Your task to perform on an android device: change text size in settings app Image 0: 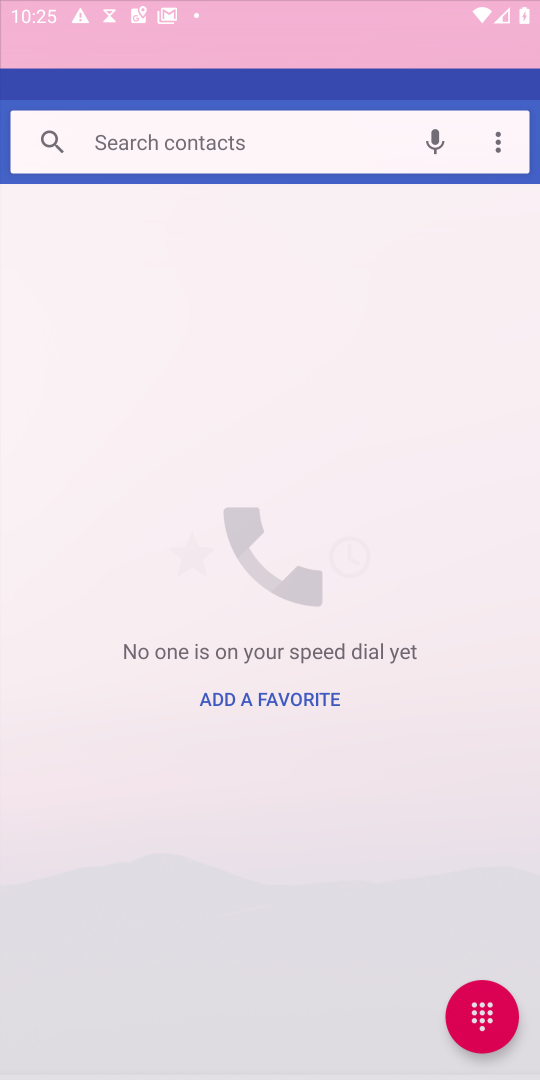
Step 0: press home button
Your task to perform on an android device: change text size in settings app Image 1: 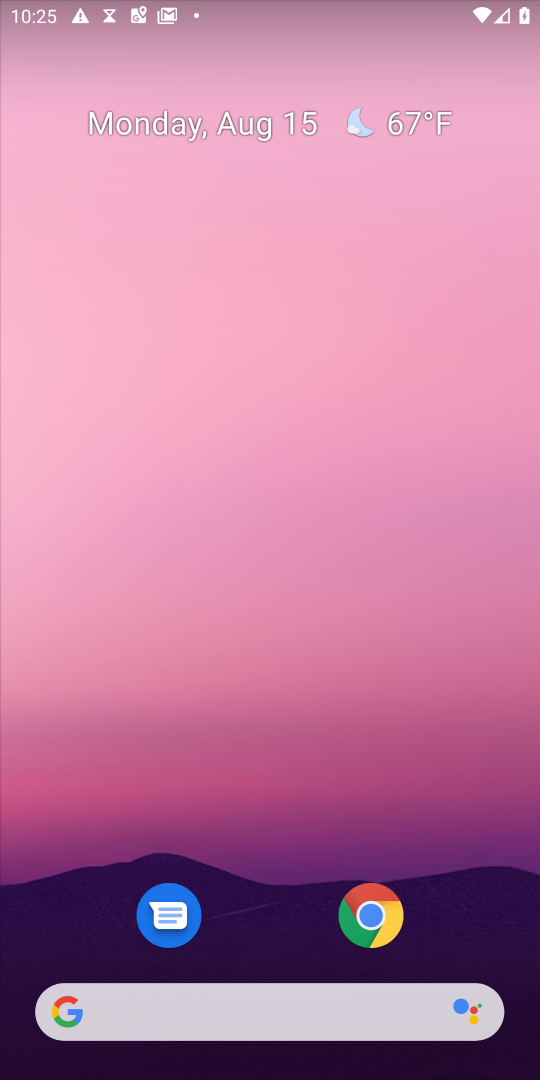
Step 1: drag from (275, 913) to (230, 167)
Your task to perform on an android device: change text size in settings app Image 2: 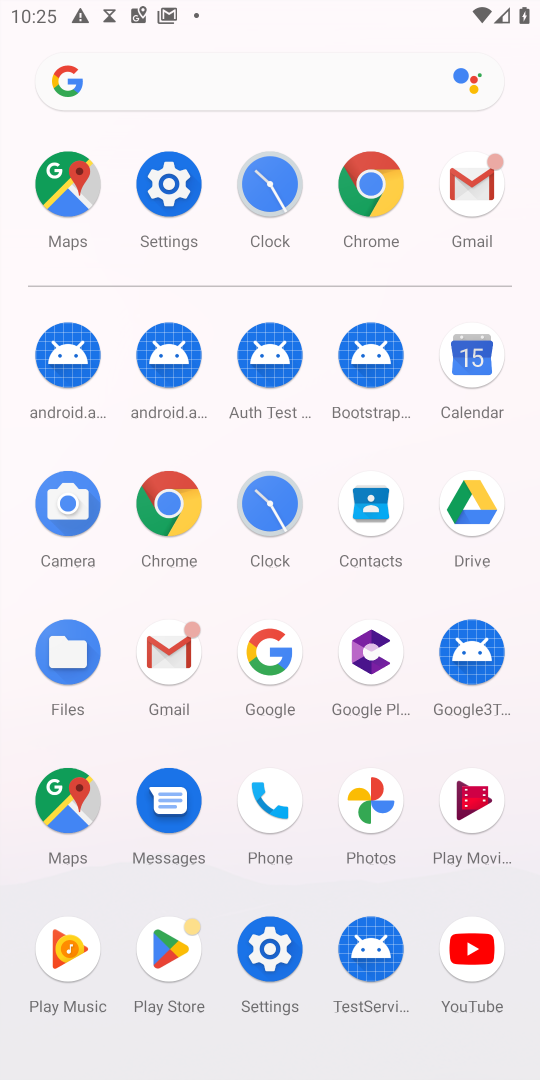
Step 2: click (185, 190)
Your task to perform on an android device: change text size in settings app Image 3: 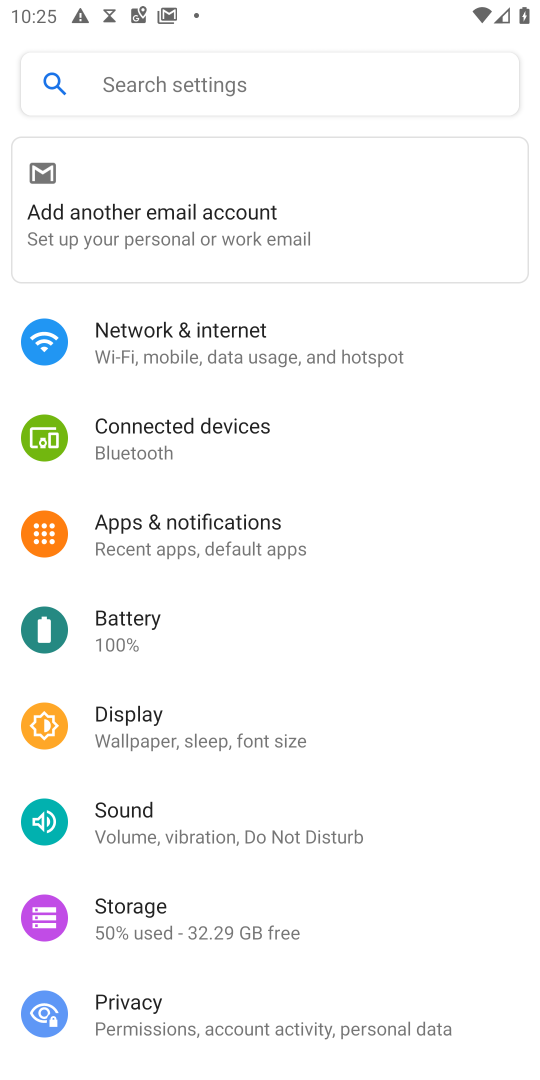
Step 3: click (155, 714)
Your task to perform on an android device: change text size in settings app Image 4: 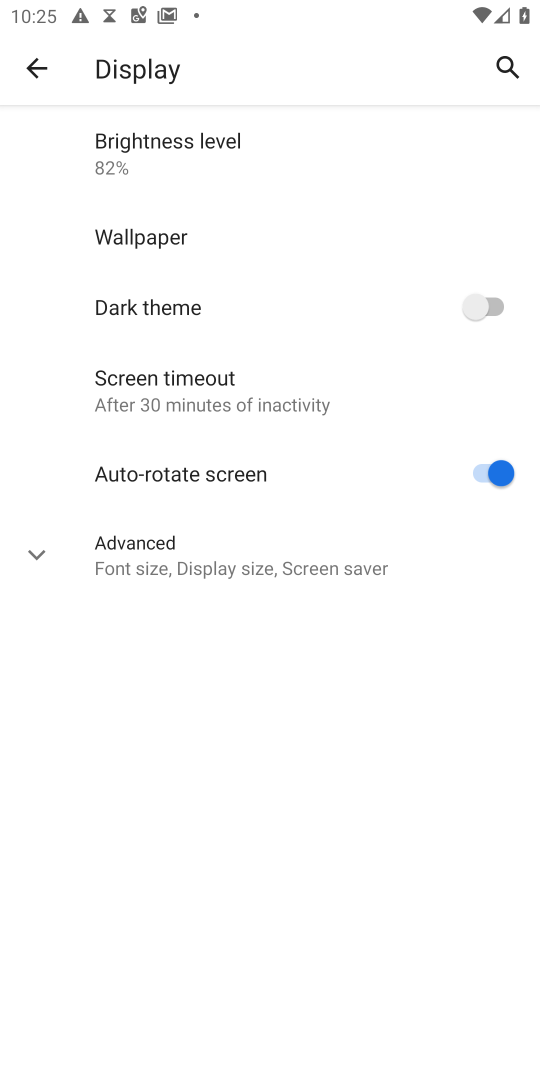
Step 4: click (35, 551)
Your task to perform on an android device: change text size in settings app Image 5: 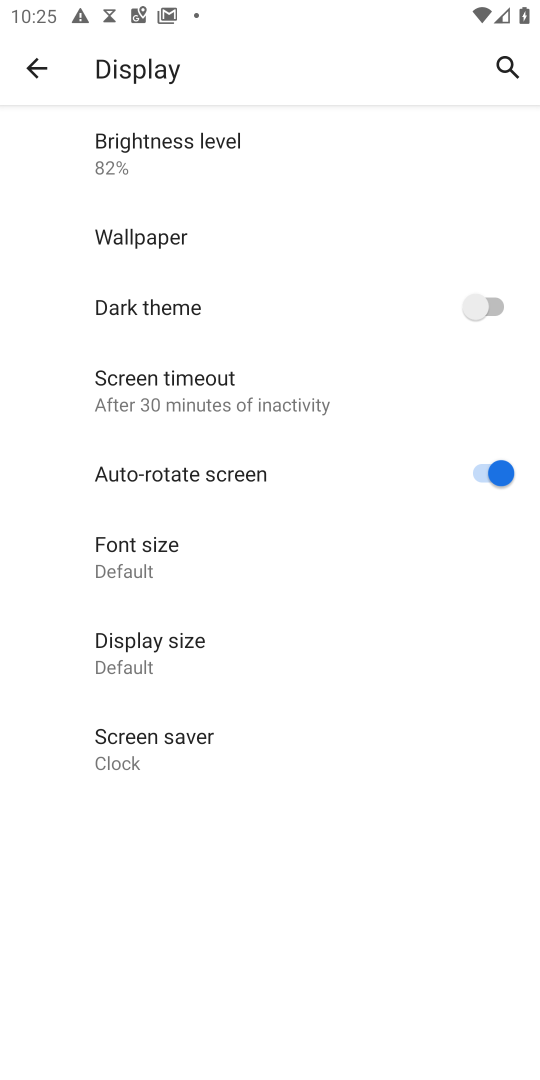
Step 5: click (180, 568)
Your task to perform on an android device: change text size in settings app Image 6: 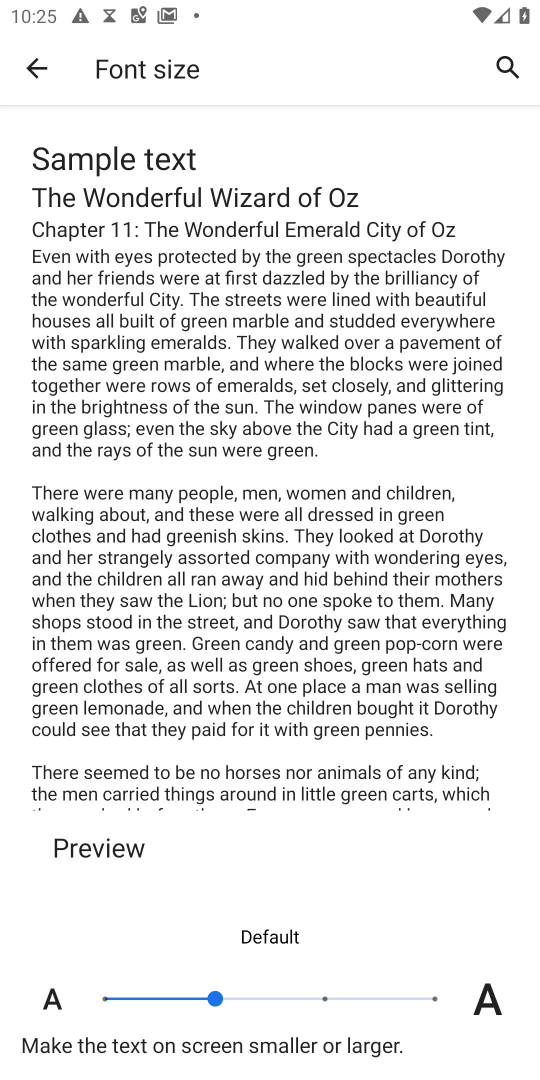
Step 6: click (323, 996)
Your task to perform on an android device: change text size in settings app Image 7: 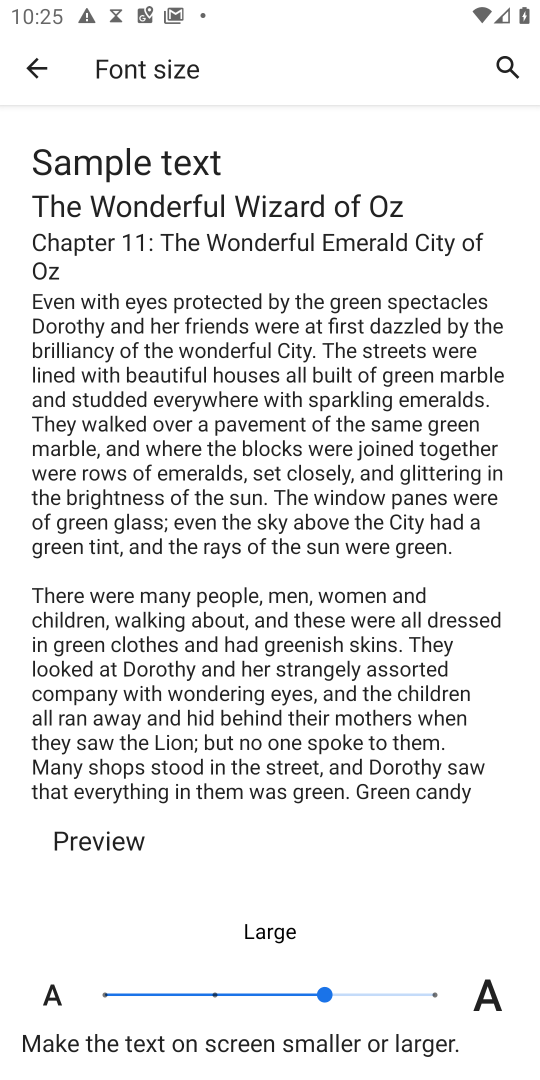
Step 7: task complete